Your task to perform on an android device: turn on the 12-hour format for clock Image 0: 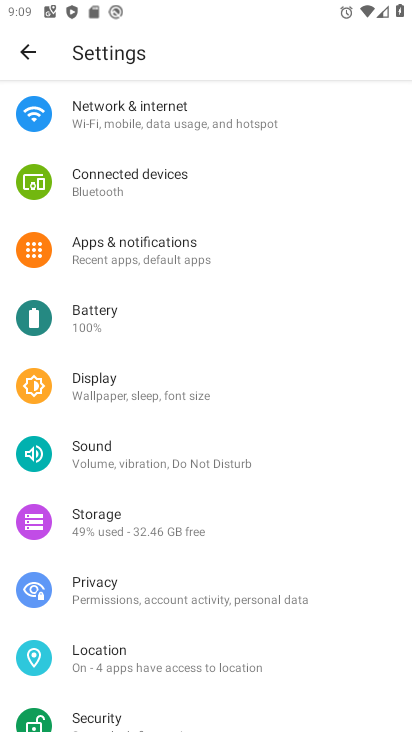
Step 0: press home button
Your task to perform on an android device: turn on the 12-hour format for clock Image 1: 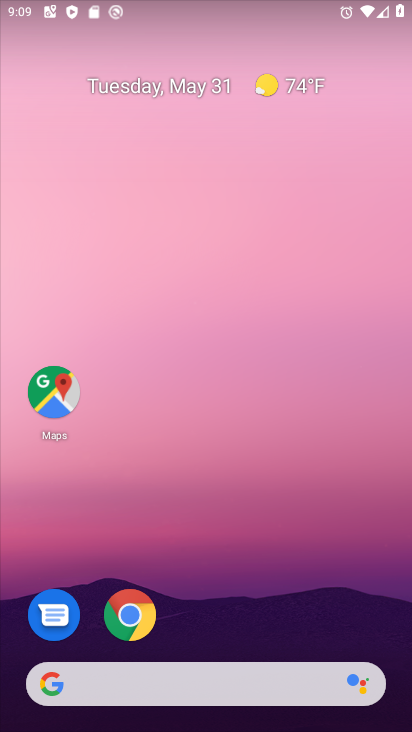
Step 1: drag from (224, 640) to (196, 239)
Your task to perform on an android device: turn on the 12-hour format for clock Image 2: 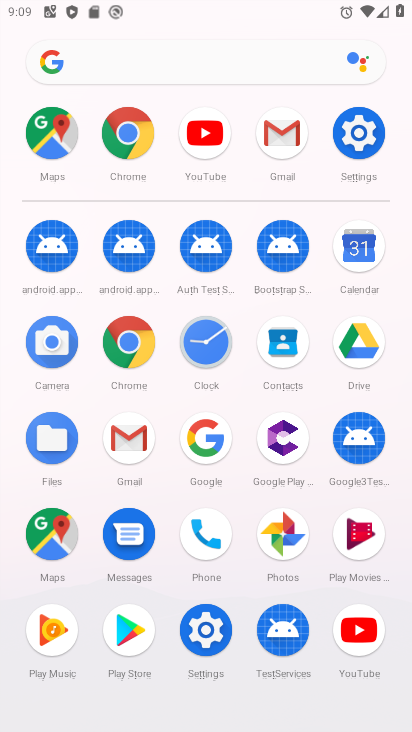
Step 2: click (216, 353)
Your task to perform on an android device: turn on the 12-hour format for clock Image 3: 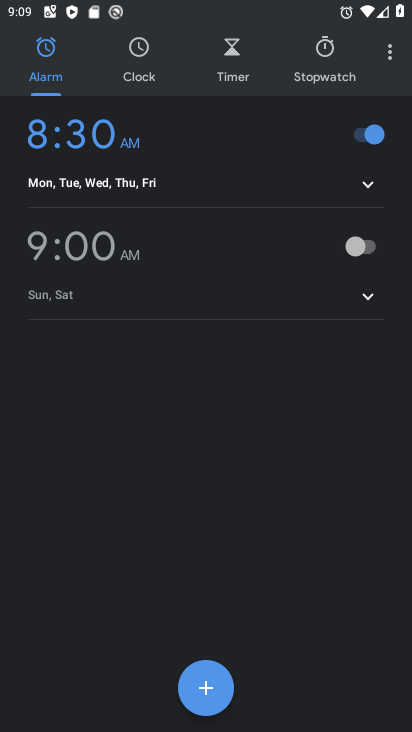
Step 3: click (391, 53)
Your task to perform on an android device: turn on the 12-hour format for clock Image 4: 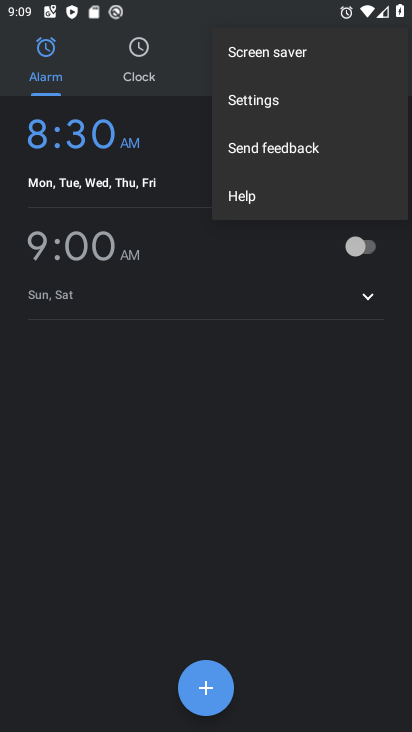
Step 4: click (280, 108)
Your task to perform on an android device: turn on the 12-hour format for clock Image 5: 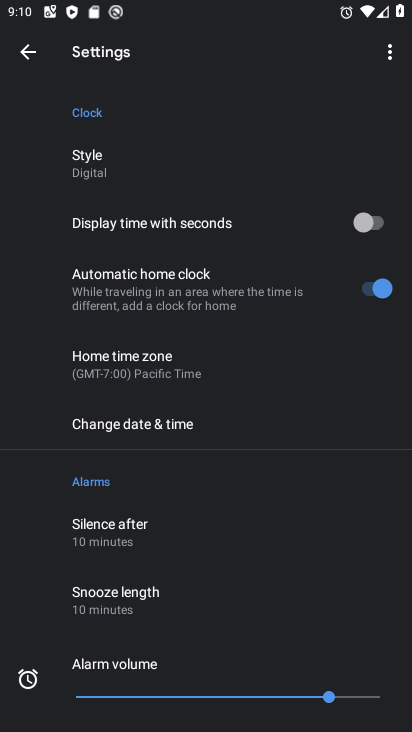
Step 5: click (174, 426)
Your task to perform on an android device: turn on the 12-hour format for clock Image 6: 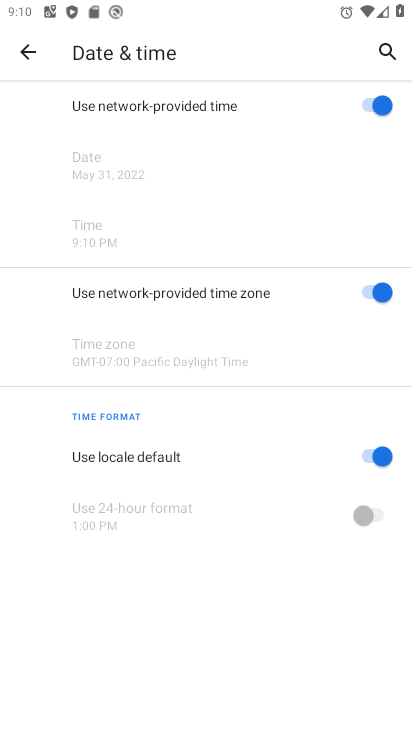
Step 6: task complete